Your task to perform on an android device: allow cookies in the chrome app Image 0: 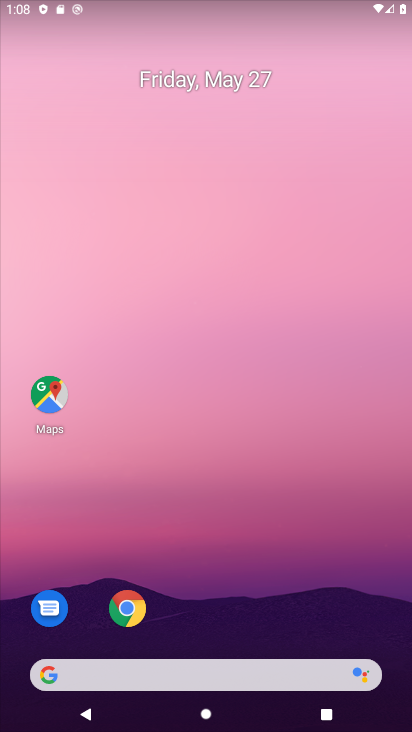
Step 0: press home button
Your task to perform on an android device: allow cookies in the chrome app Image 1: 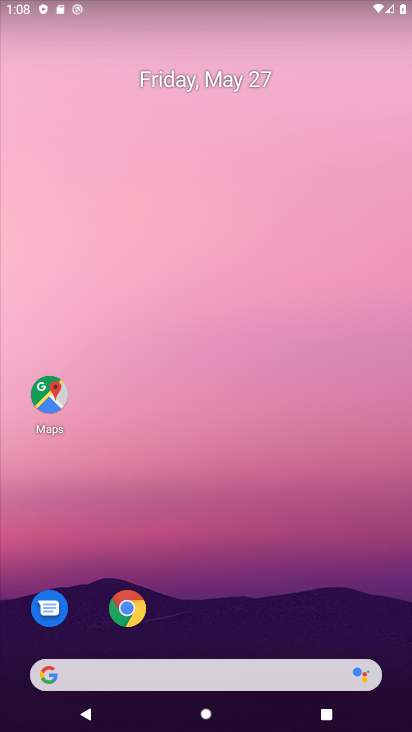
Step 1: click (133, 613)
Your task to perform on an android device: allow cookies in the chrome app Image 2: 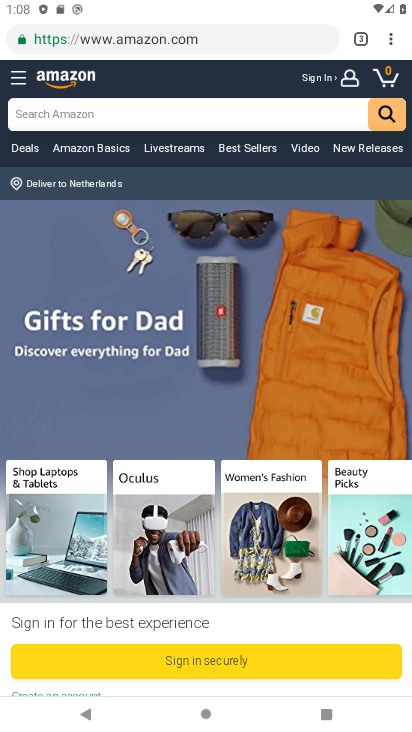
Step 2: drag from (387, 47) to (257, 477)
Your task to perform on an android device: allow cookies in the chrome app Image 3: 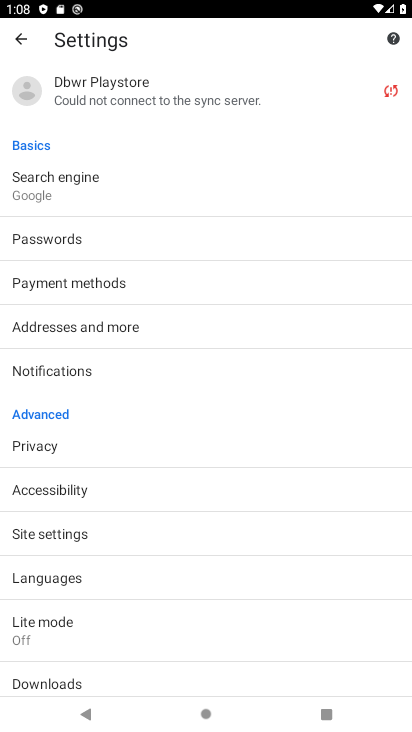
Step 3: click (59, 534)
Your task to perform on an android device: allow cookies in the chrome app Image 4: 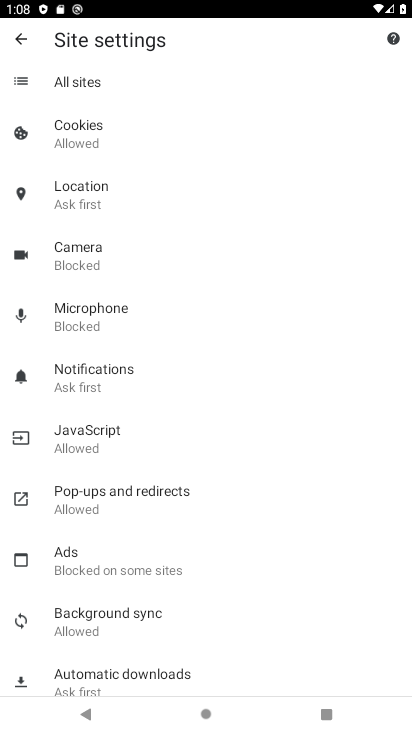
Step 4: click (85, 136)
Your task to perform on an android device: allow cookies in the chrome app Image 5: 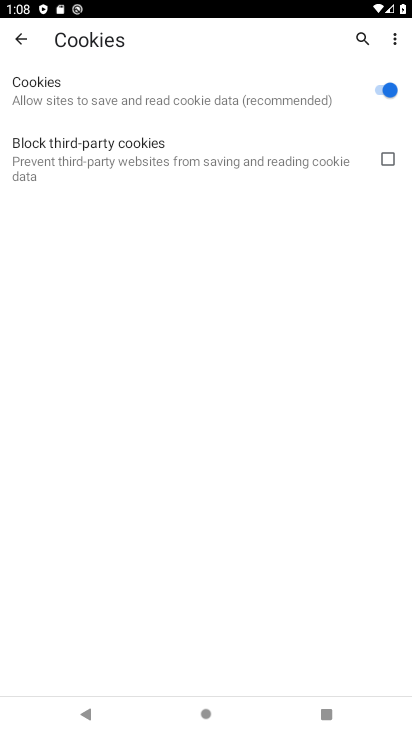
Step 5: task complete